Your task to perform on an android device: move an email to a new category in the gmail app Image 0: 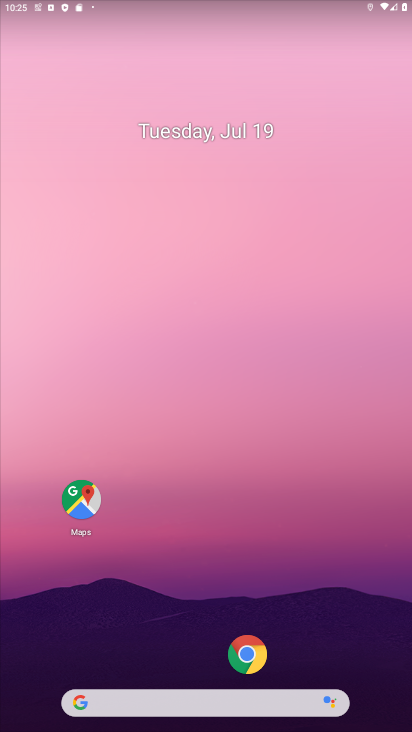
Step 0: drag from (130, 627) to (239, 0)
Your task to perform on an android device: move an email to a new category in the gmail app Image 1: 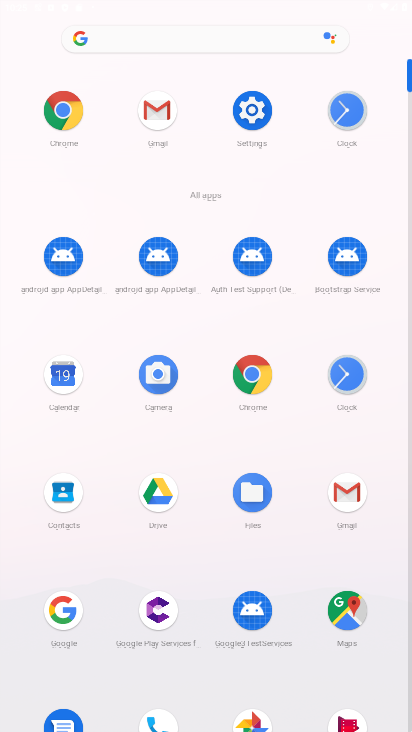
Step 1: click (145, 126)
Your task to perform on an android device: move an email to a new category in the gmail app Image 2: 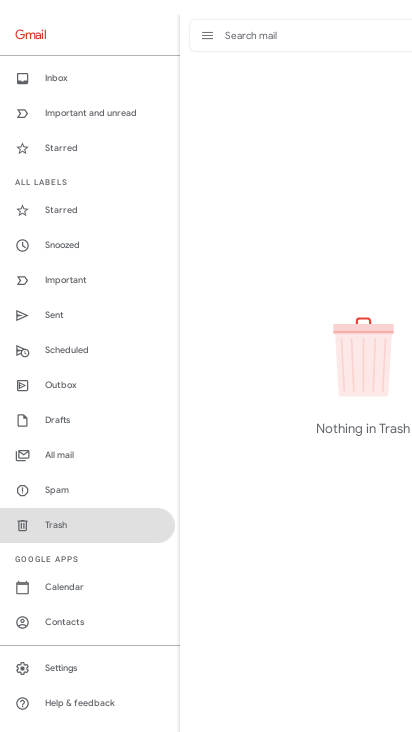
Step 2: click (85, 465)
Your task to perform on an android device: move an email to a new category in the gmail app Image 3: 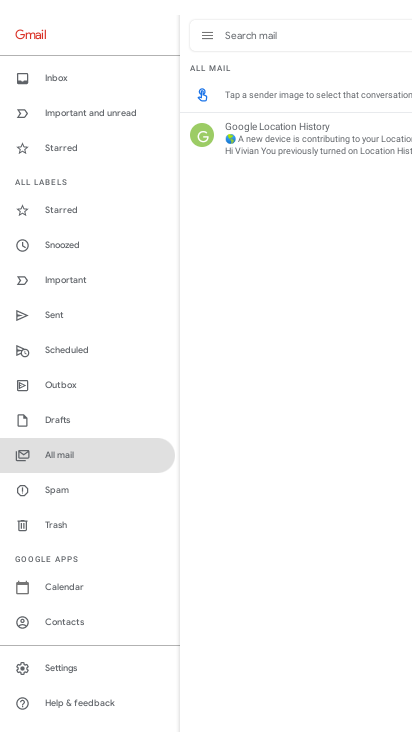
Step 3: click (194, 140)
Your task to perform on an android device: move an email to a new category in the gmail app Image 4: 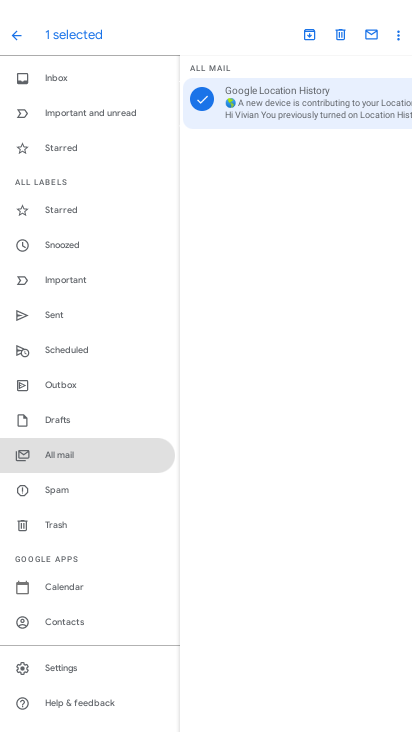
Step 4: click (390, 36)
Your task to perform on an android device: move an email to a new category in the gmail app Image 5: 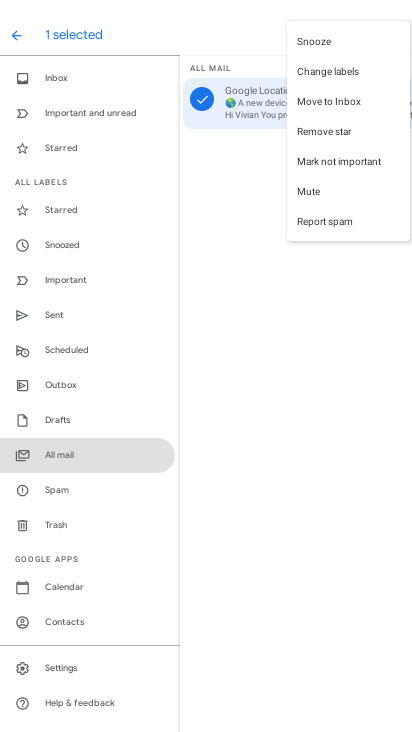
Step 5: click (326, 79)
Your task to perform on an android device: move an email to a new category in the gmail app Image 6: 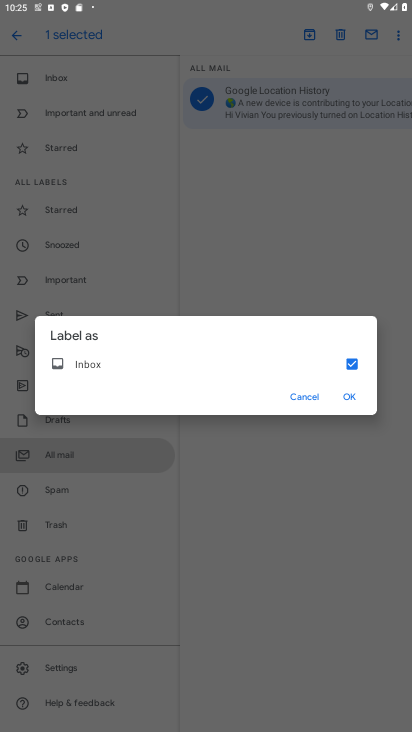
Step 6: click (351, 366)
Your task to perform on an android device: move an email to a new category in the gmail app Image 7: 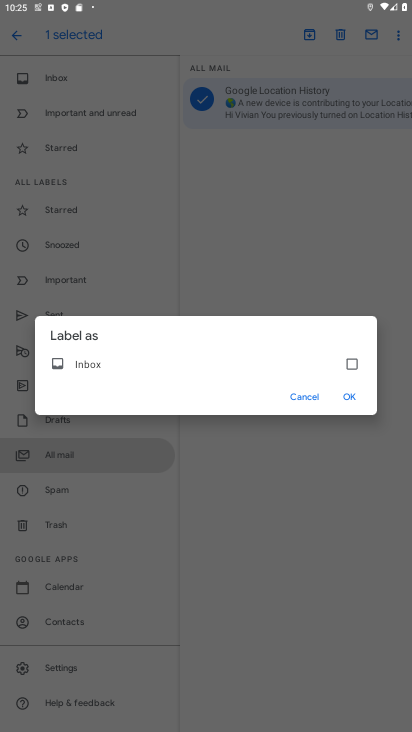
Step 7: click (349, 388)
Your task to perform on an android device: move an email to a new category in the gmail app Image 8: 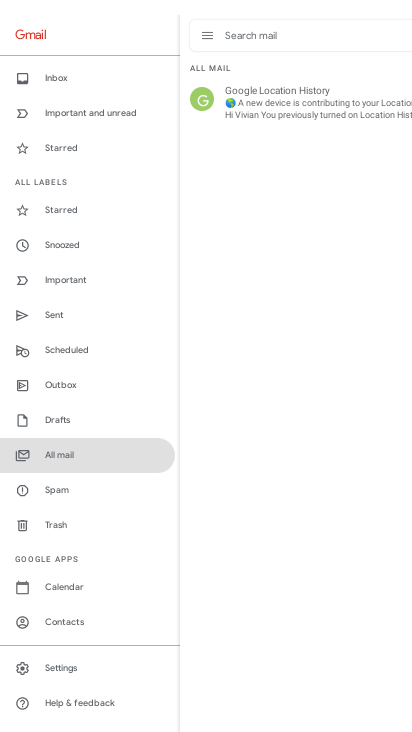
Step 8: task complete